Your task to perform on an android device: stop showing notifications on the lock screen Image 0: 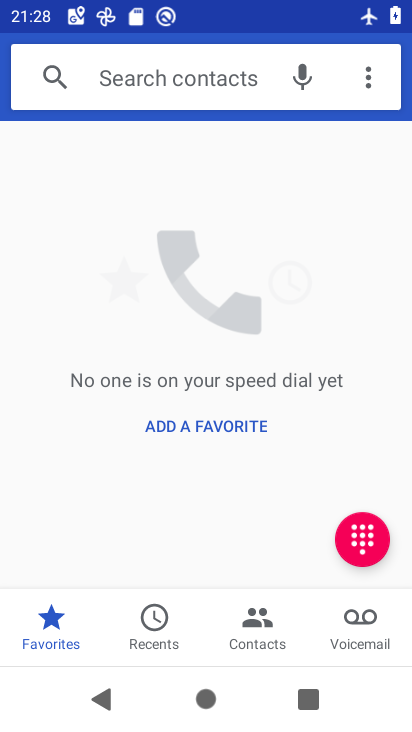
Step 0: press home button
Your task to perform on an android device: stop showing notifications on the lock screen Image 1: 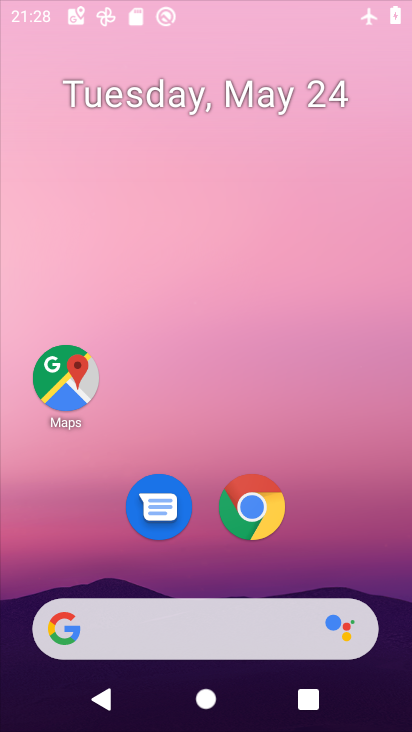
Step 1: drag from (198, 564) to (237, 271)
Your task to perform on an android device: stop showing notifications on the lock screen Image 2: 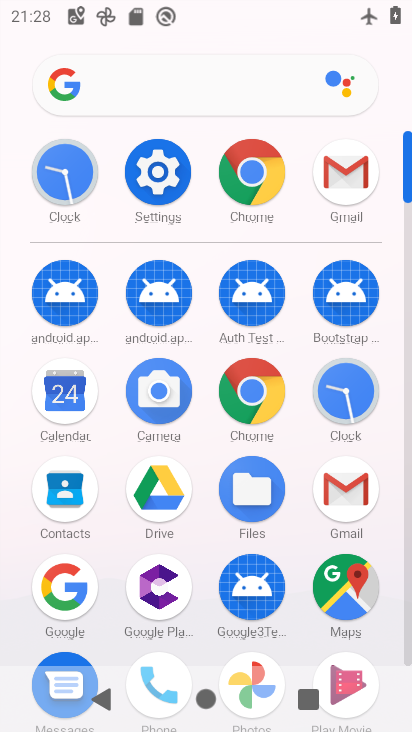
Step 2: click (158, 163)
Your task to perform on an android device: stop showing notifications on the lock screen Image 3: 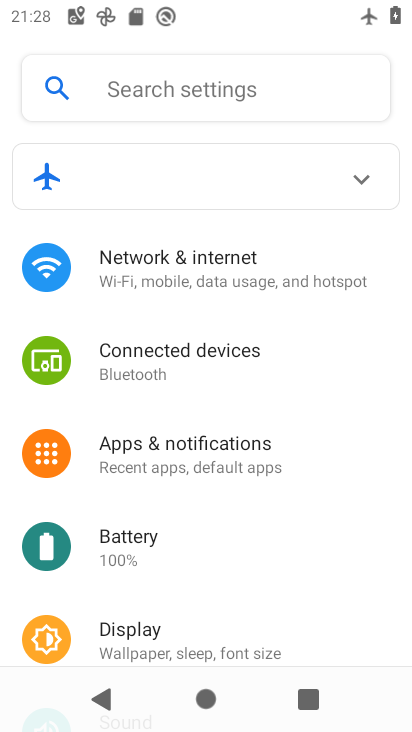
Step 3: click (164, 88)
Your task to perform on an android device: stop showing notifications on the lock screen Image 4: 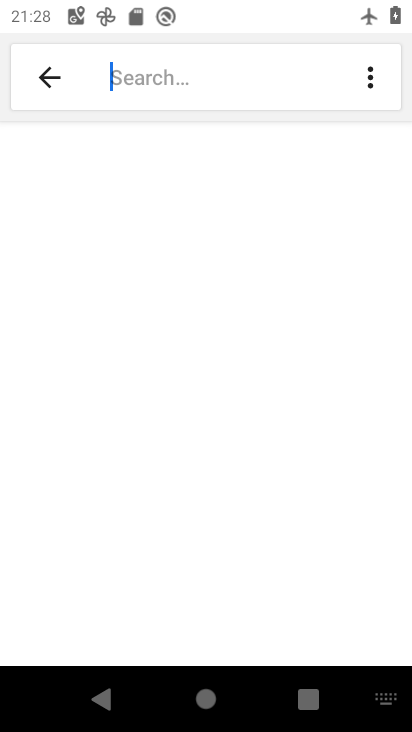
Step 4: click (147, 78)
Your task to perform on an android device: stop showing notifications on the lock screen Image 5: 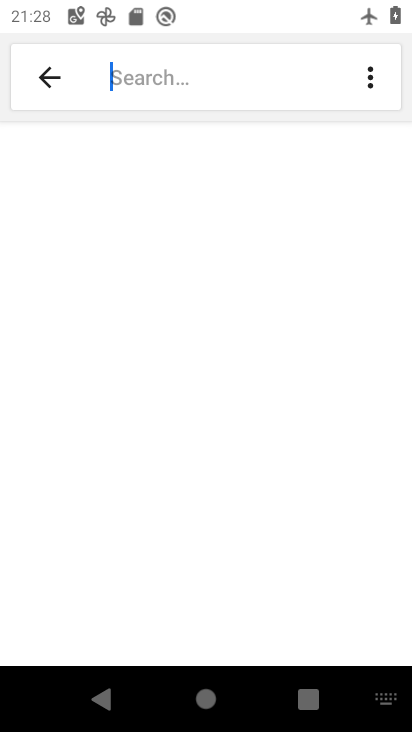
Step 5: click (56, 82)
Your task to perform on an android device: stop showing notifications on the lock screen Image 6: 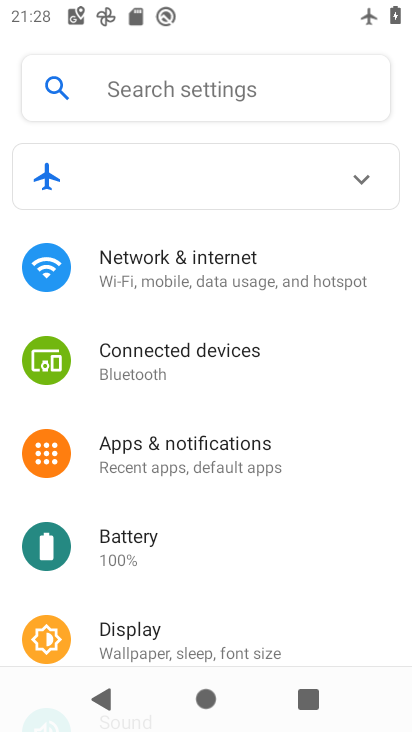
Step 6: drag from (185, 603) to (215, 206)
Your task to perform on an android device: stop showing notifications on the lock screen Image 7: 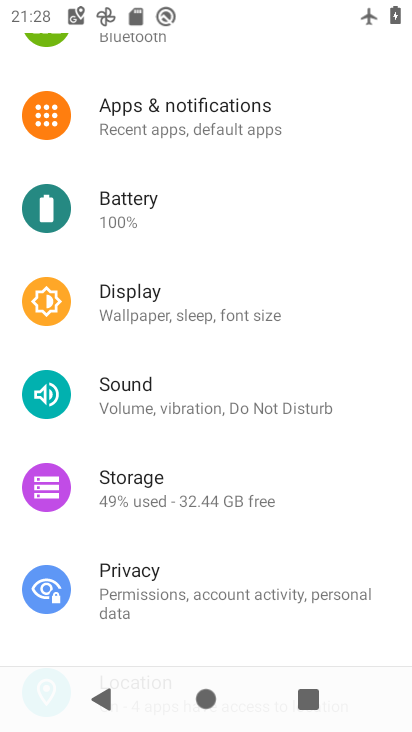
Step 7: drag from (204, 559) to (278, 198)
Your task to perform on an android device: stop showing notifications on the lock screen Image 8: 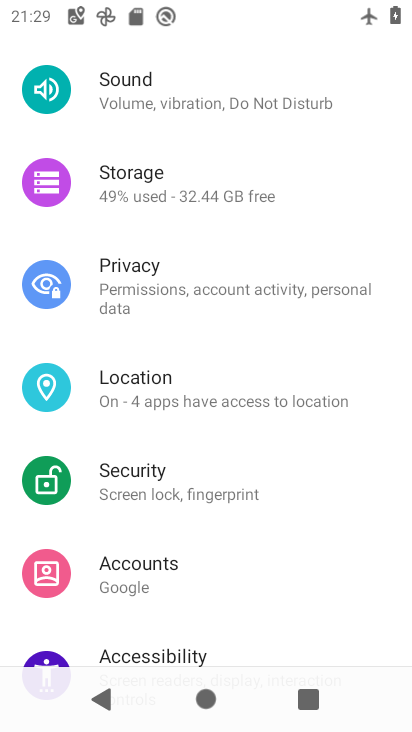
Step 8: drag from (196, 171) to (244, 721)
Your task to perform on an android device: stop showing notifications on the lock screen Image 9: 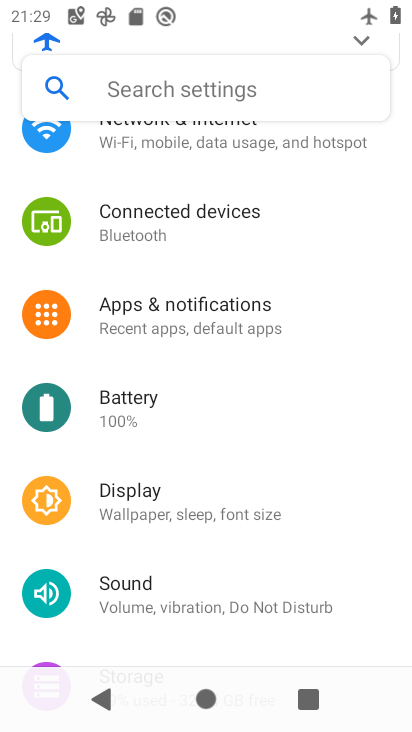
Step 9: click (174, 321)
Your task to perform on an android device: stop showing notifications on the lock screen Image 10: 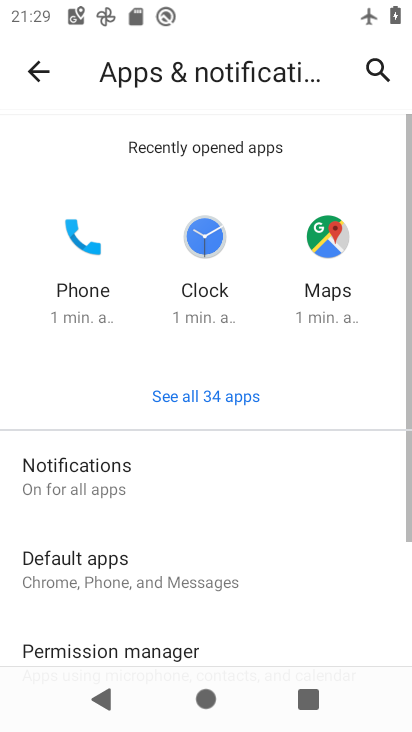
Step 10: drag from (217, 572) to (284, 234)
Your task to perform on an android device: stop showing notifications on the lock screen Image 11: 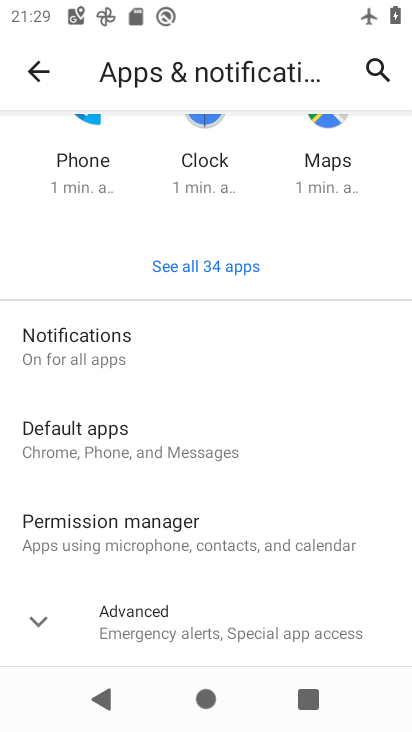
Step 11: click (179, 355)
Your task to perform on an android device: stop showing notifications on the lock screen Image 12: 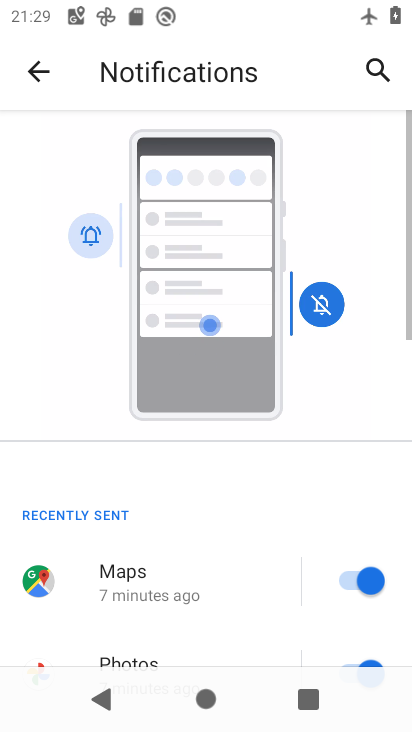
Step 12: drag from (187, 568) to (264, 278)
Your task to perform on an android device: stop showing notifications on the lock screen Image 13: 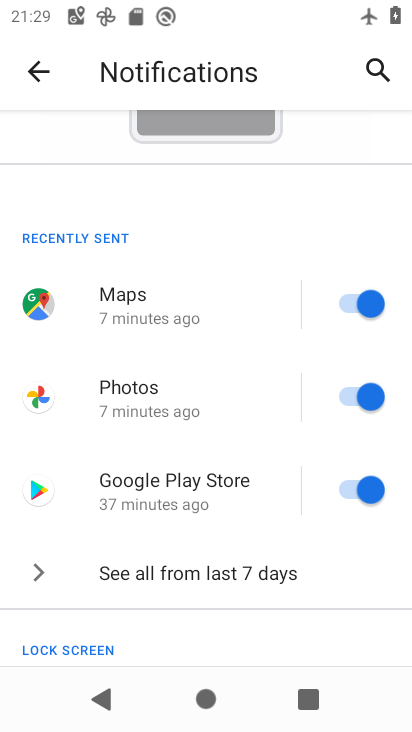
Step 13: drag from (236, 585) to (269, 315)
Your task to perform on an android device: stop showing notifications on the lock screen Image 14: 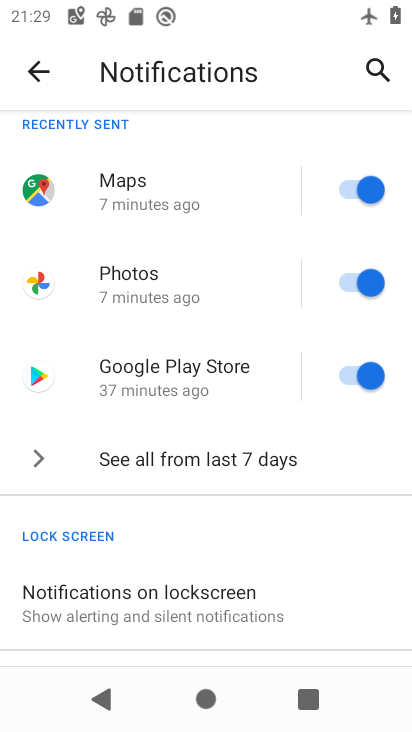
Step 14: click (215, 591)
Your task to perform on an android device: stop showing notifications on the lock screen Image 15: 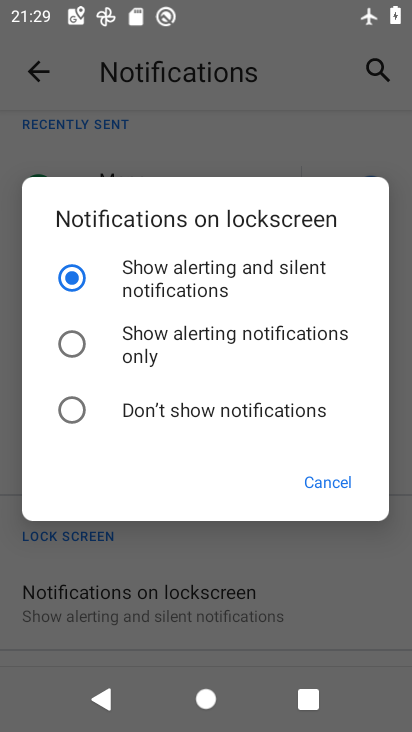
Step 15: click (93, 404)
Your task to perform on an android device: stop showing notifications on the lock screen Image 16: 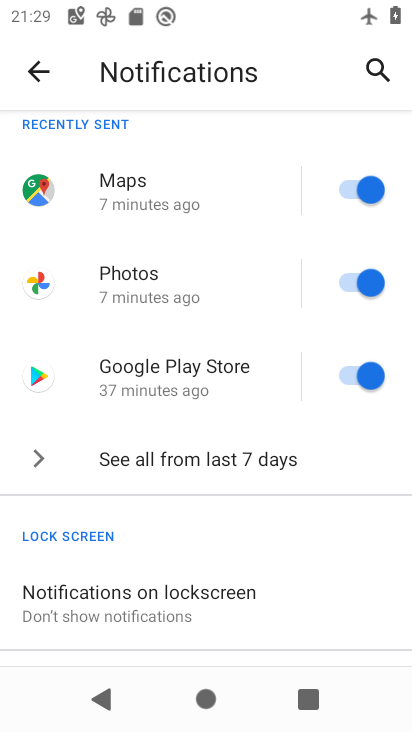
Step 16: drag from (170, 607) to (236, 386)
Your task to perform on an android device: stop showing notifications on the lock screen Image 17: 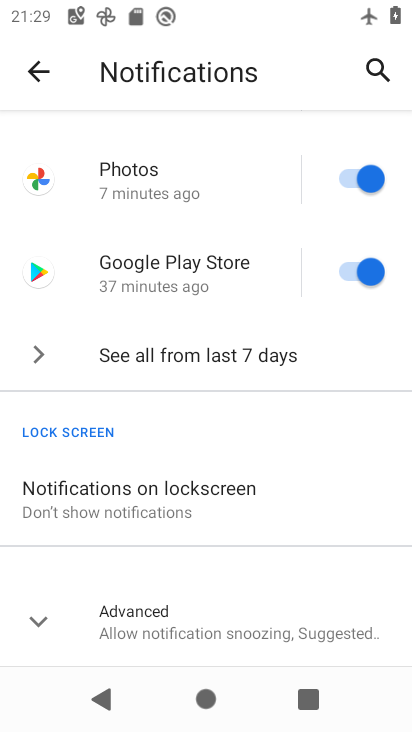
Step 17: click (195, 501)
Your task to perform on an android device: stop showing notifications on the lock screen Image 18: 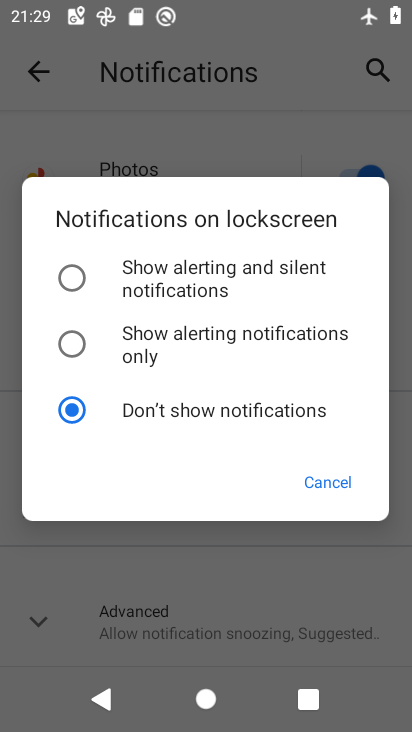
Step 18: click (197, 404)
Your task to perform on an android device: stop showing notifications on the lock screen Image 19: 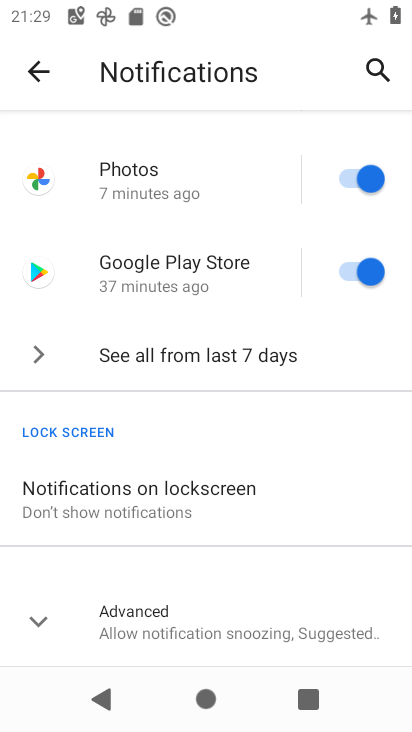
Step 19: task complete